Your task to perform on an android device: Open calendar and show me the fourth week of next month Image 0: 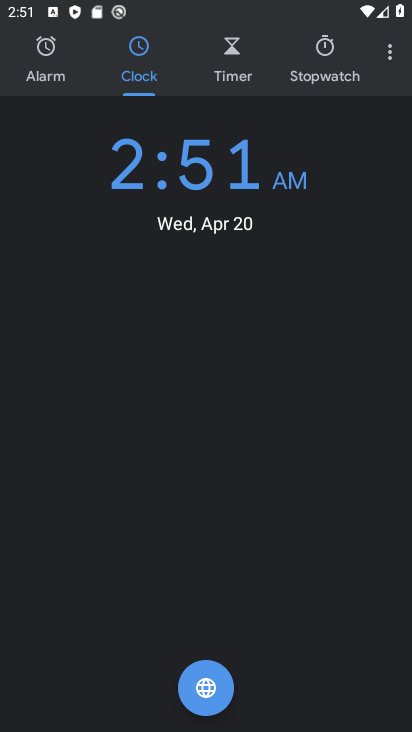
Step 0: press home button
Your task to perform on an android device: Open calendar and show me the fourth week of next month Image 1: 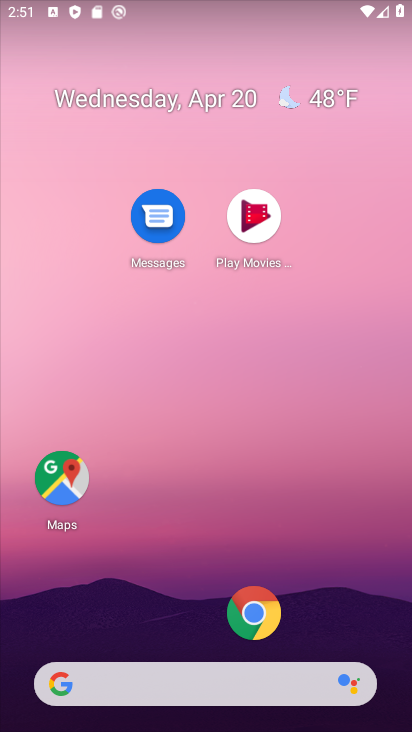
Step 1: drag from (207, 576) to (266, 126)
Your task to perform on an android device: Open calendar and show me the fourth week of next month Image 2: 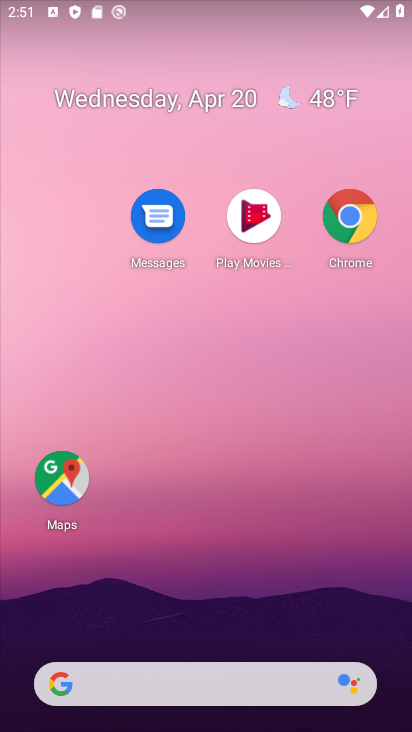
Step 2: click (220, 618)
Your task to perform on an android device: Open calendar and show me the fourth week of next month Image 3: 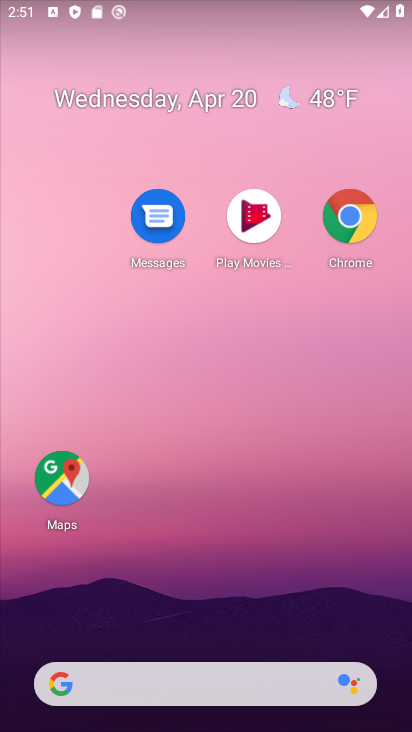
Step 3: drag from (219, 587) to (217, 98)
Your task to perform on an android device: Open calendar and show me the fourth week of next month Image 4: 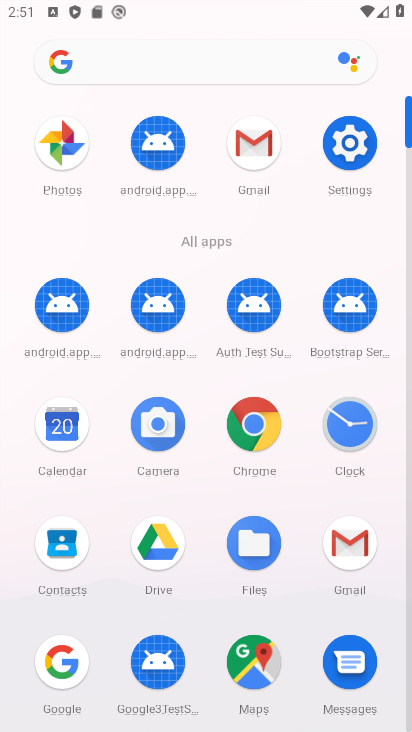
Step 4: click (63, 433)
Your task to perform on an android device: Open calendar and show me the fourth week of next month Image 5: 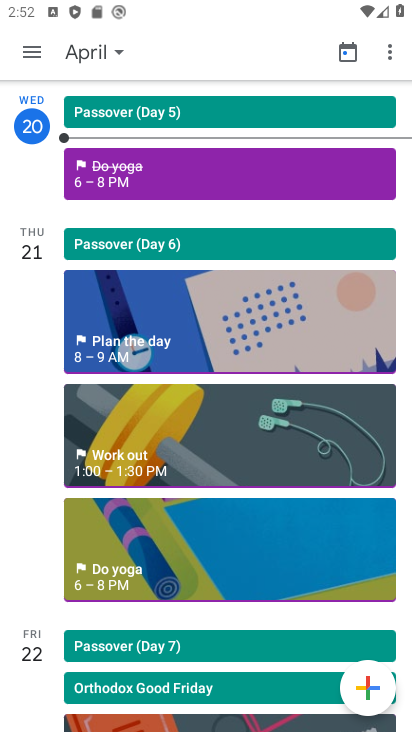
Step 5: click (99, 55)
Your task to perform on an android device: Open calendar and show me the fourth week of next month Image 6: 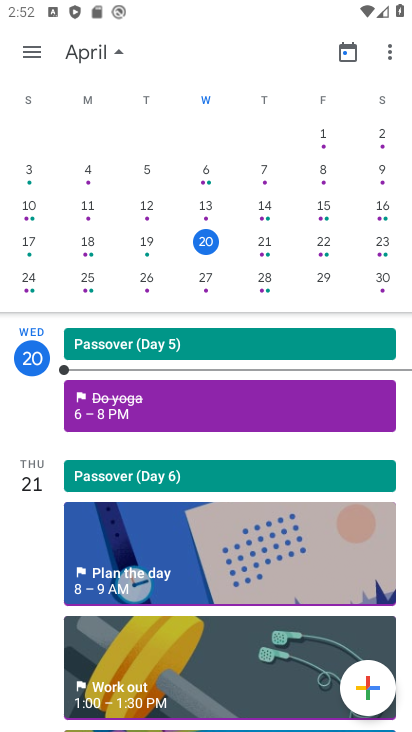
Step 6: drag from (296, 237) to (1, 303)
Your task to perform on an android device: Open calendar and show me the fourth week of next month Image 7: 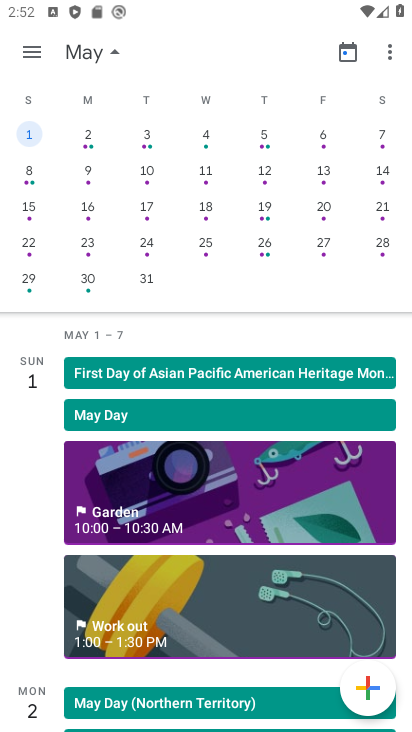
Step 7: click (24, 250)
Your task to perform on an android device: Open calendar and show me the fourth week of next month Image 8: 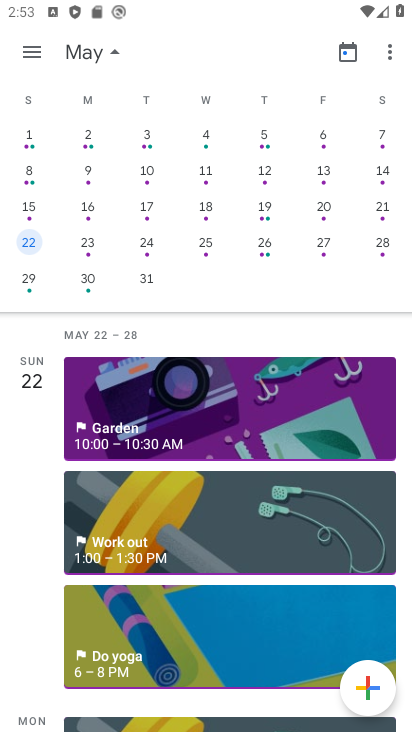
Step 8: click (35, 48)
Your task to perform on an android device: Open calendar and show me the fourth week of next month Image 9: 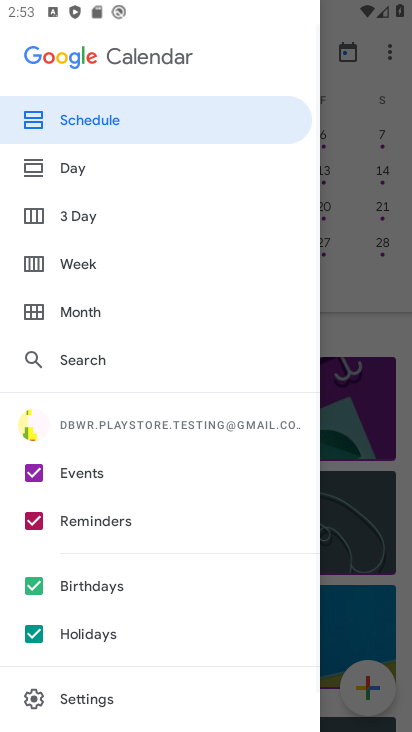
Step 9: click (98, 272)
Your task to perform on an android device: Open calendar and show me the fourth week of next month Image 10: 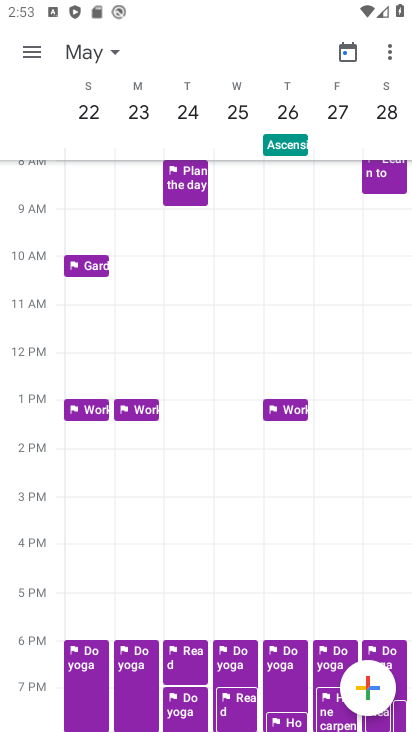
Step 10: task complete